Your task to perform on an android device: Open maps Image 0: 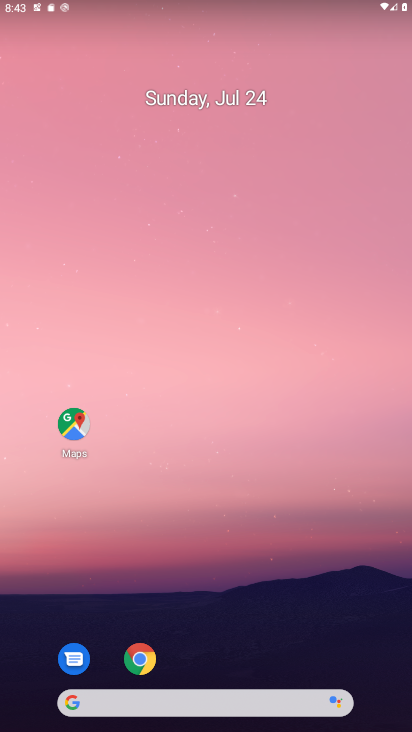
Step 0: drag from (196, 726) to (171, 235)
Your task to perform on an android device: Open maps Image 1: 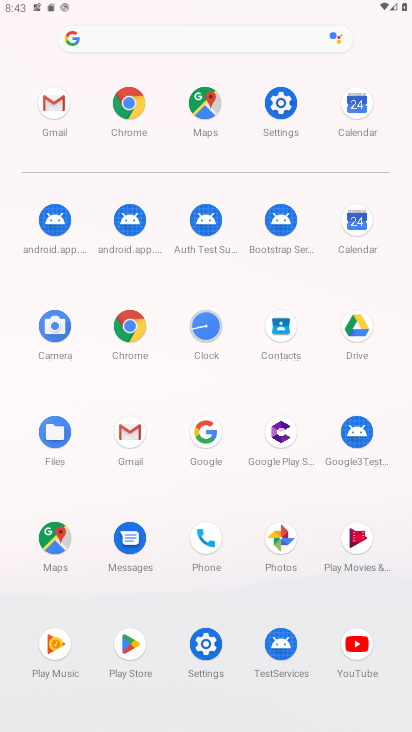
Step 1: click (58, 535)
Your task to perform on an android device: Open maps Image 2: 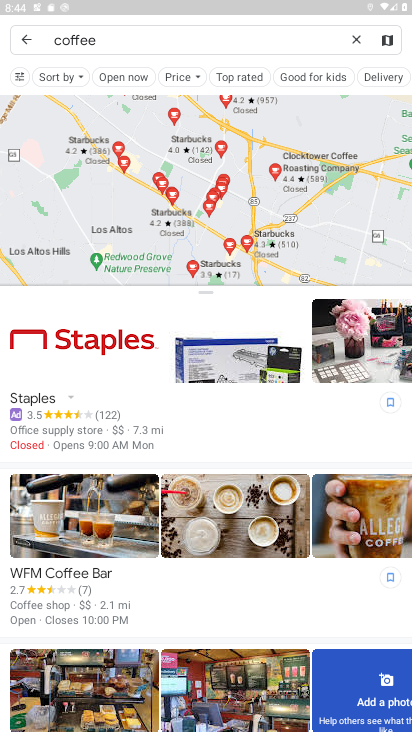
Step 2: task complete